Your task to perform on an android device: Go to Google maps Image 0: 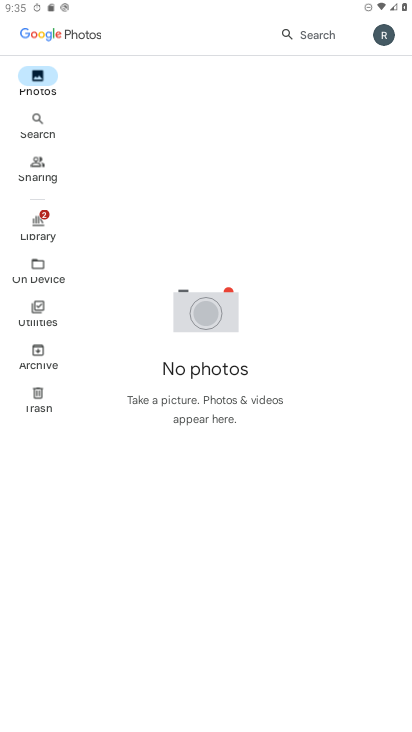
Step 0: press home button
Your task to perform on an android device: Go to Google maps Image 1: 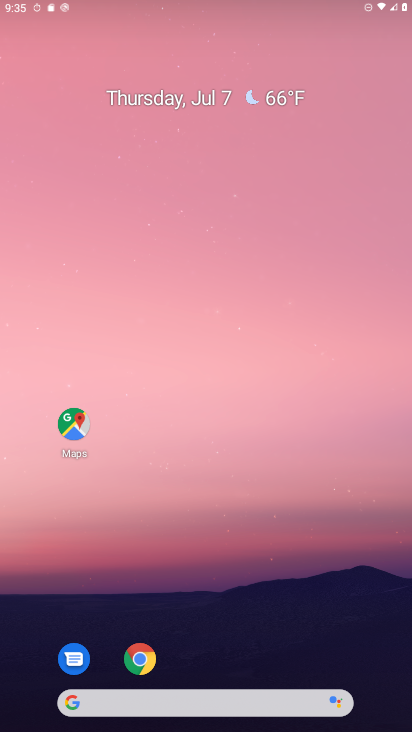
Step 1: drag from (389, 688) to (289, 84)
Your task to perform on an android device: Go to Google maps Image 2: 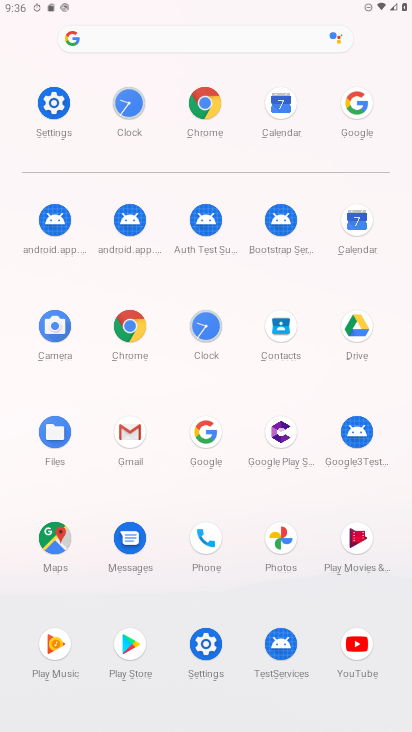
Step 2: click (67, 531)
Your task to perform on an android device: Go to Google maps Image 3: 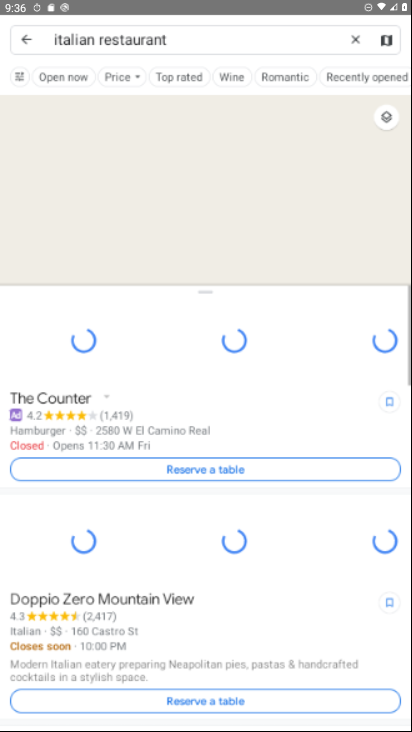
Step 3: click (358, 32)
Your task to perform on an android device: Go to Google maps Image 4: 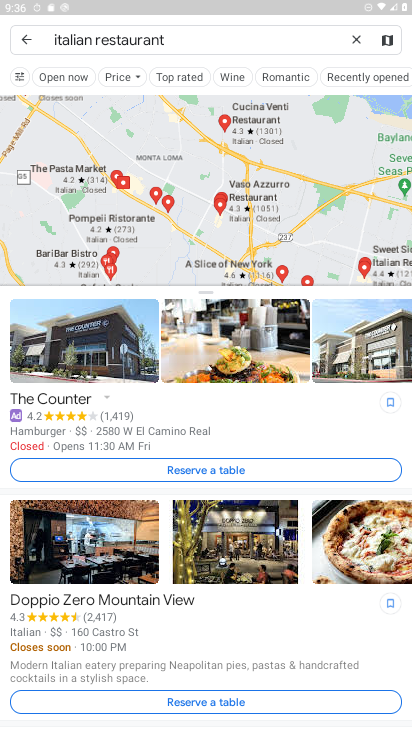
Step 4: click (356, 35)
Your task to perform on an android device: Go to Google maps Image 5: 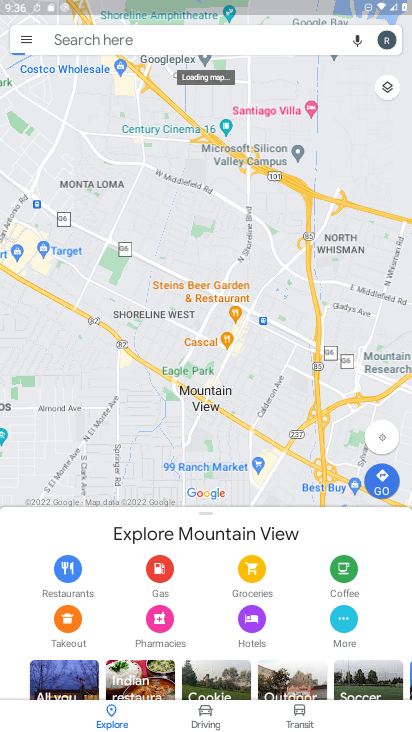
Step 5: task complete